Your task to perform on an android device: Open settings on Google Maps Image 0: 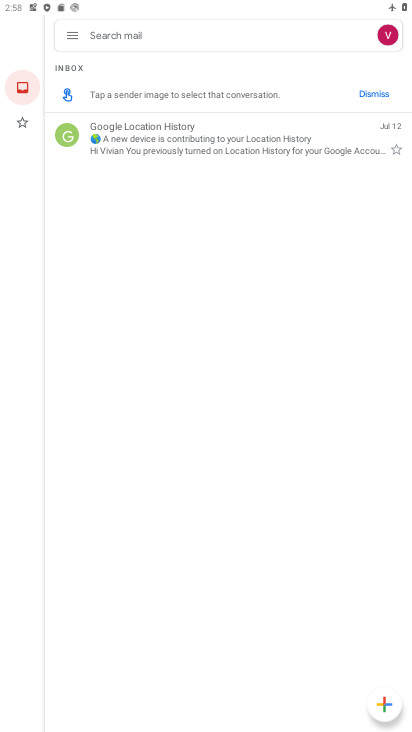
Step 0: press home button
Your task to perform on an android device: Open settings on Google Maps Image 1: 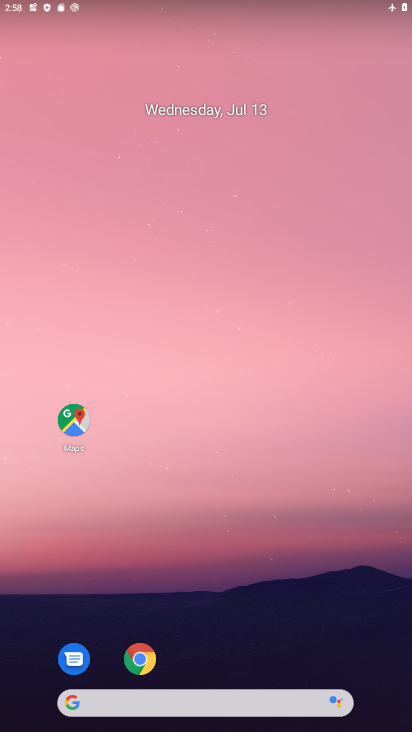
Step 1: click (68, 414)
Your task to perform on an android device: Open settings on Google Maps Image 2: 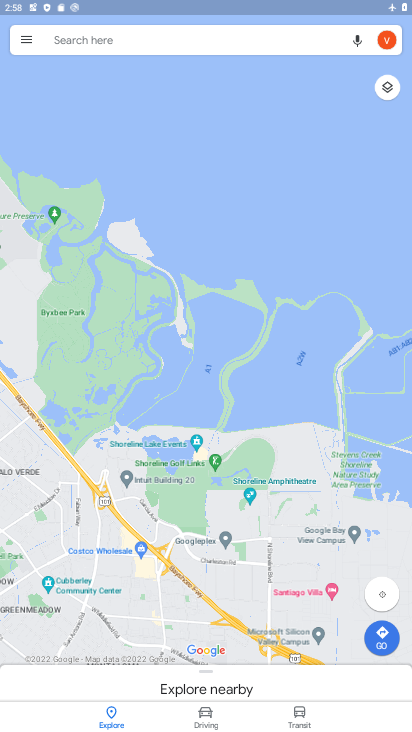
Step 2: click (23, 36)
Your task to perform on an android device: Open settings on Google Maps Image 3: 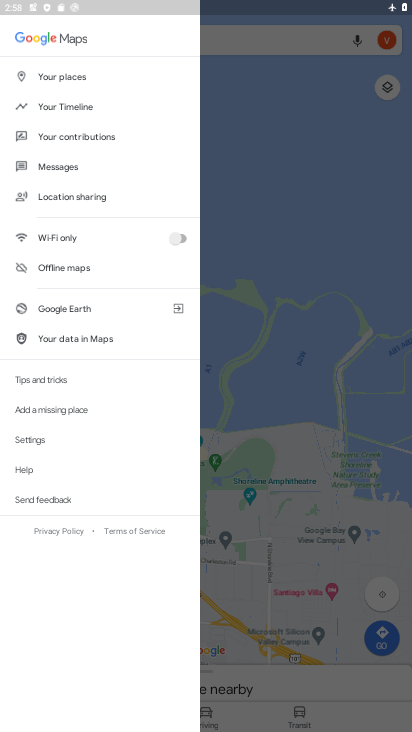
Step 3: click (30, 436)
Your task to perform on an android device: Open settings on Google Maps Image 4: 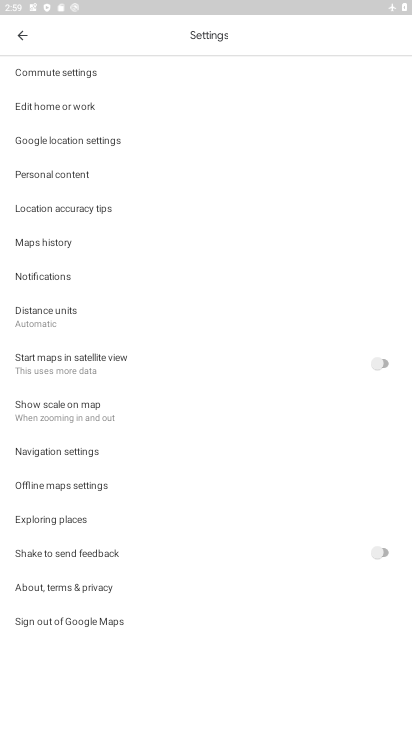
Step 4: task complete